Your task to perform on an android device: make emails show in primary in the gmail app Image 0: 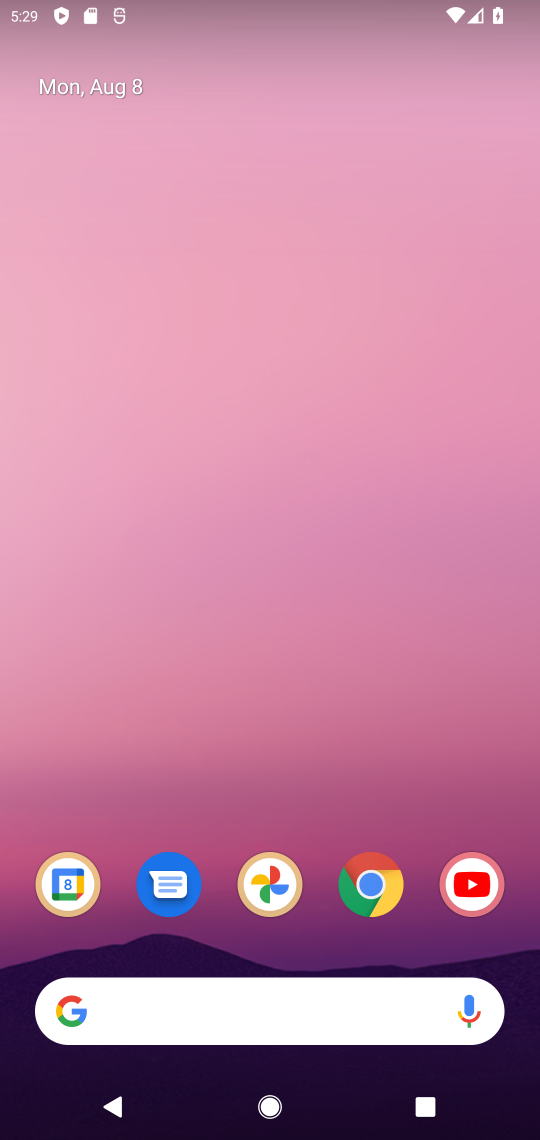
Step 0: drag from (317, 838) to (285, 91)
Your task to perform on an android device: make emails show in primary in the gmail app Image 1: 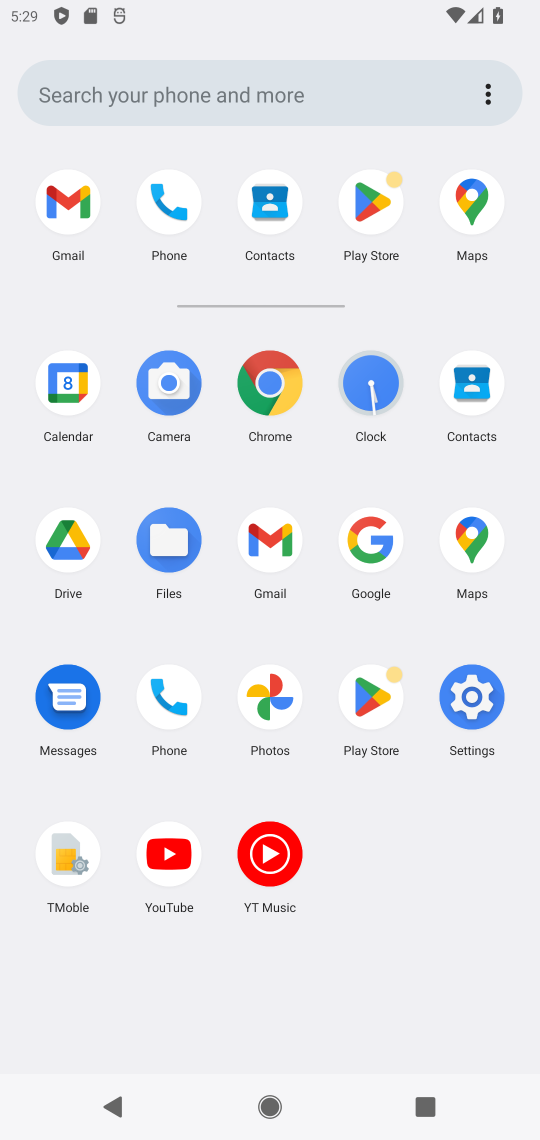
Step 1: click (61, 200)
Your task to perform on an android device: make emails show in primary in the gmail app Image 2: 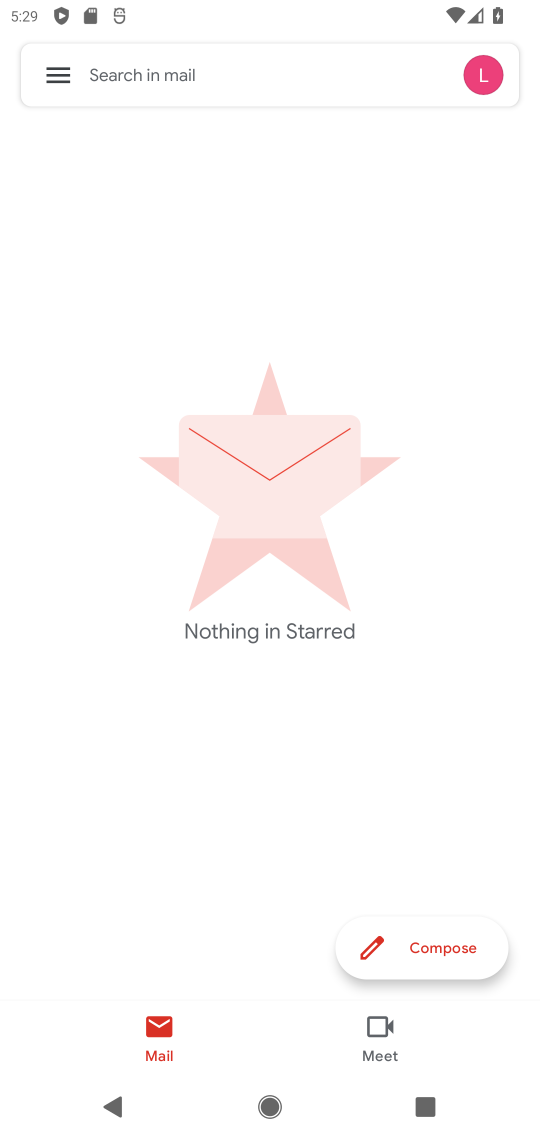
Step 2: click (57, 78)
Your task to perform on an android device: make emails show in primary in the gmail app Image 3: 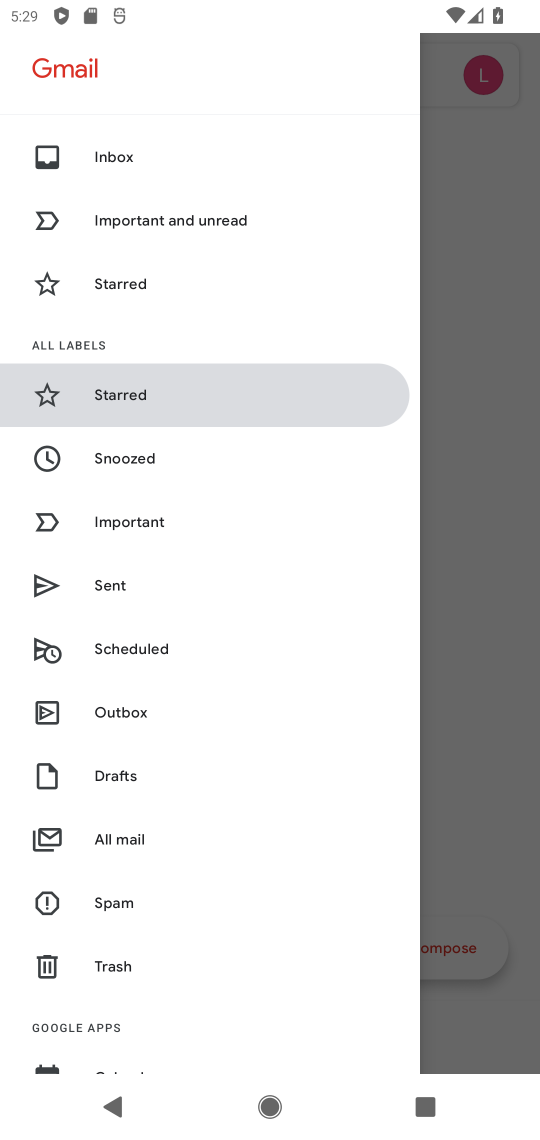
Step 3: drag from (223, 962) to (164, 330)
Your task to perform on an android device: make emails show in primary in the gmail app Image 4: 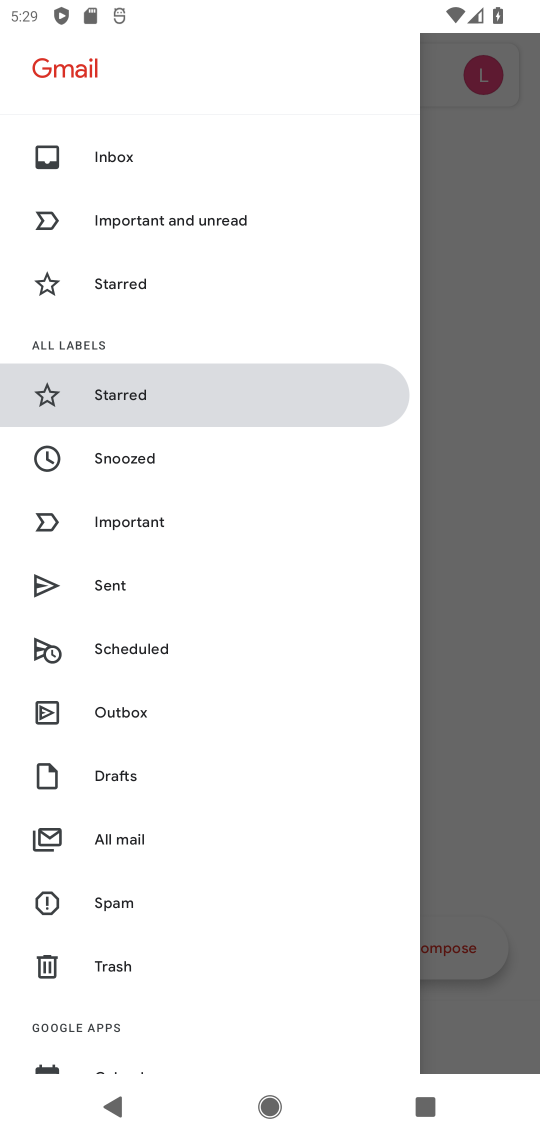
Step 4: drag from (184, 973) to (171, 568)
Your task to perform on an android device: make emails show in primary in the gmail app Image 5: 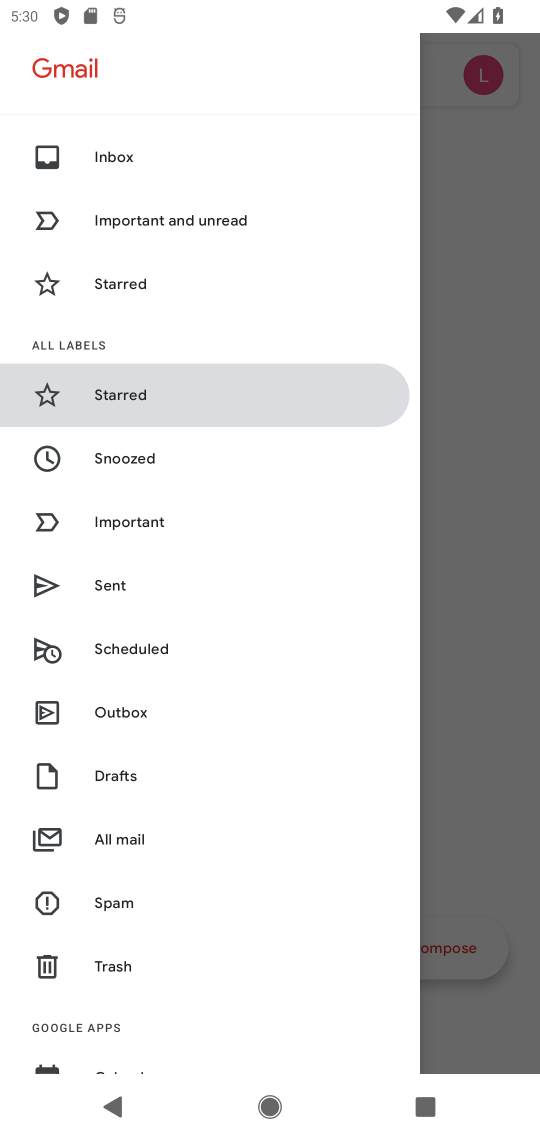
Step 5: drag from (299, 1038) to (257, 229)
Your task to perform on an android device: make emails show in primary in the gmail app Image 6: 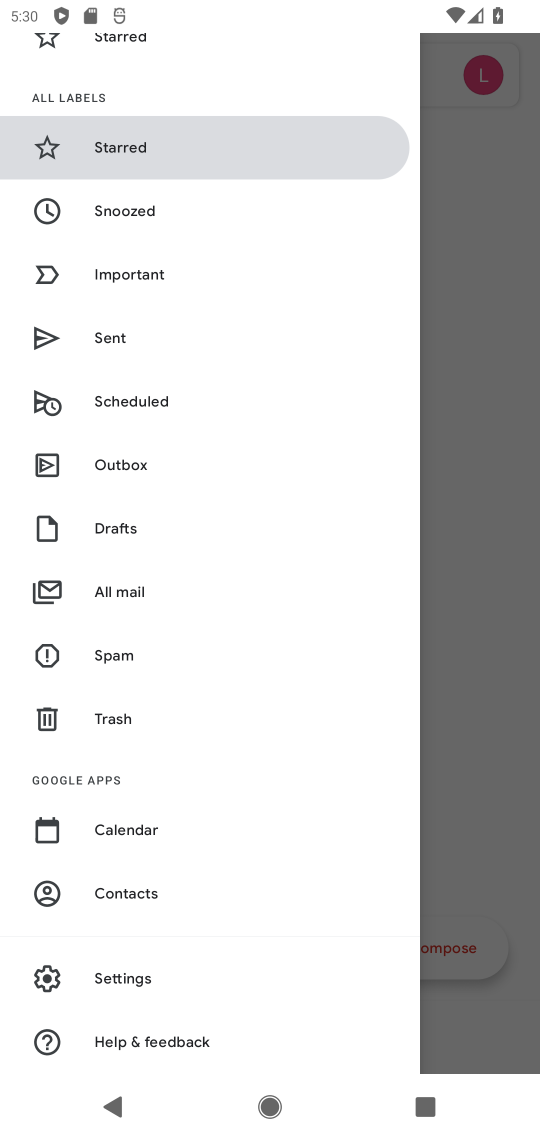
Step 6: click (190, 996)
Your task to perform on an android device: make emails show in primary in the gmail app Image 7: 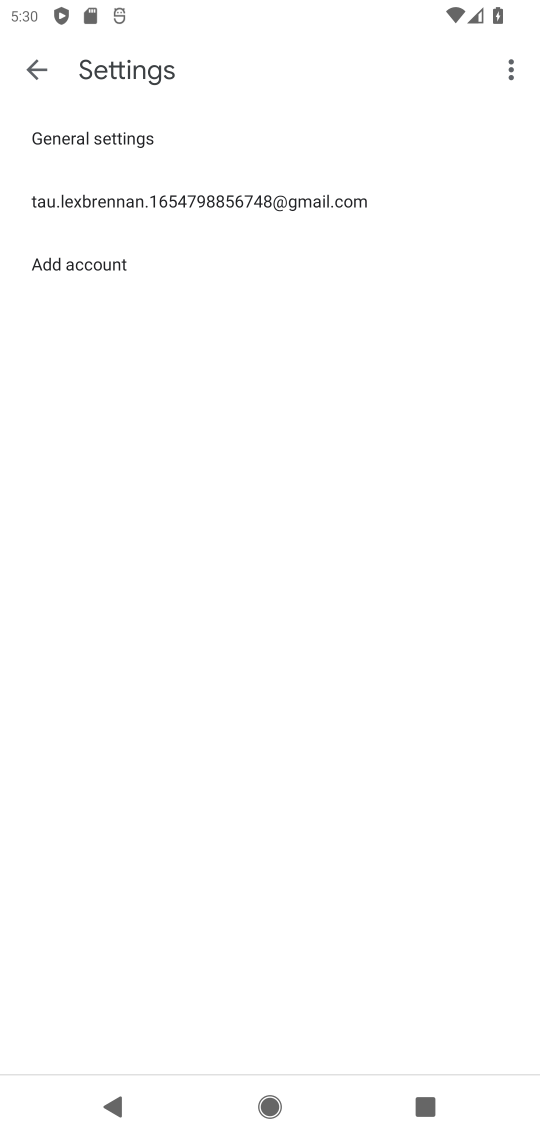
Step 7: click (321, 200)
Your task to perform on an android device: make emails show in primary in the gmail app Image 8: 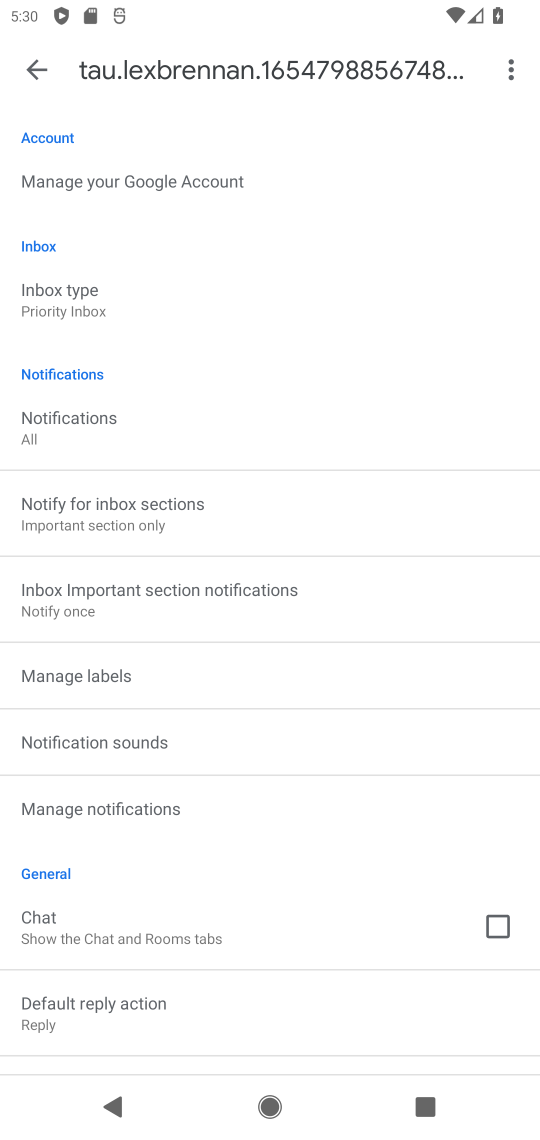
Step 8: click (117, 303)
Your task to perform on an android device: make emails show in primary in the gmail app Image 9: 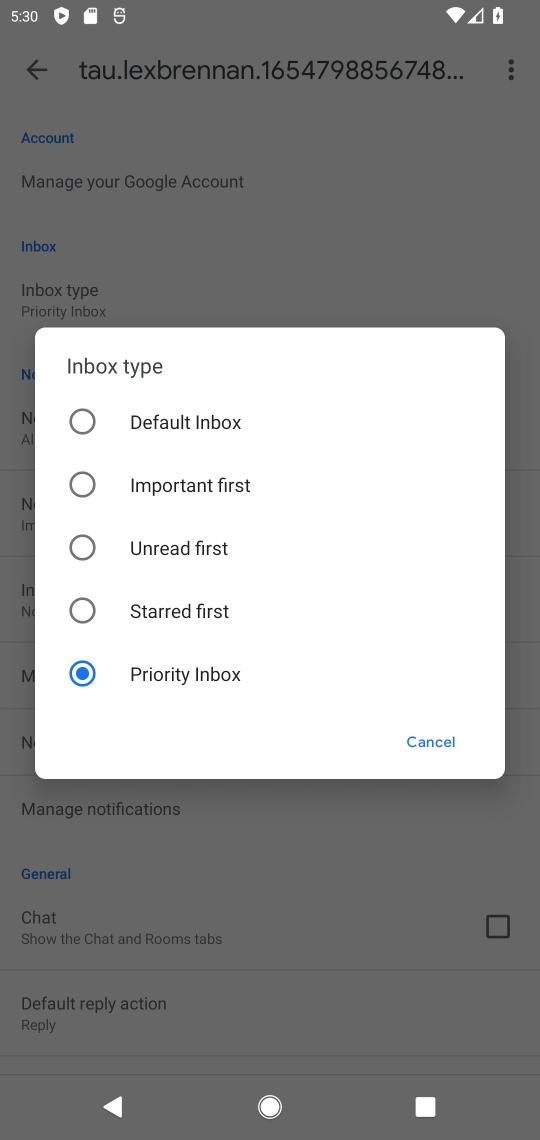
Step 9: click (191, 424)
Your task to perform on an android device: make emails show in primary in the gmail app Image 10: 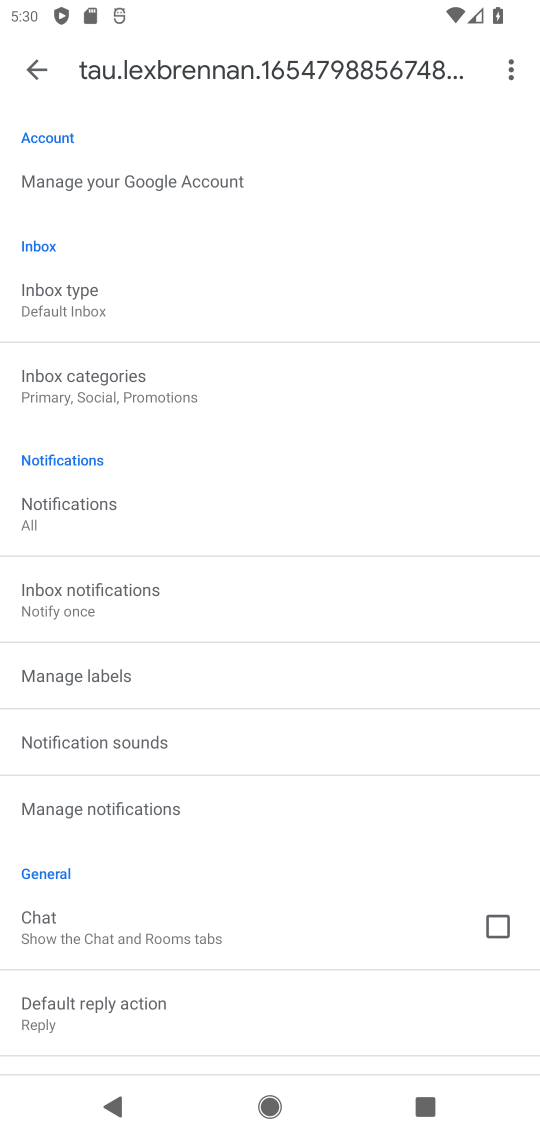
Step 10: task complete